Your task to perform on an android device: Open privacy settings Image 0: 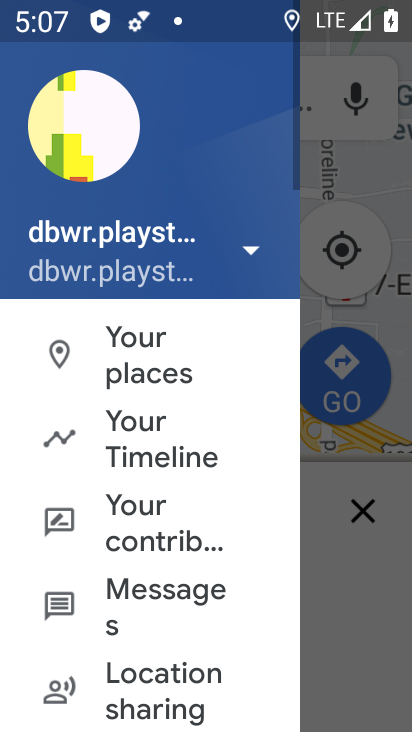
Step 0: press home button
Your task to perform on an android device: Open privacy settings Image 1: 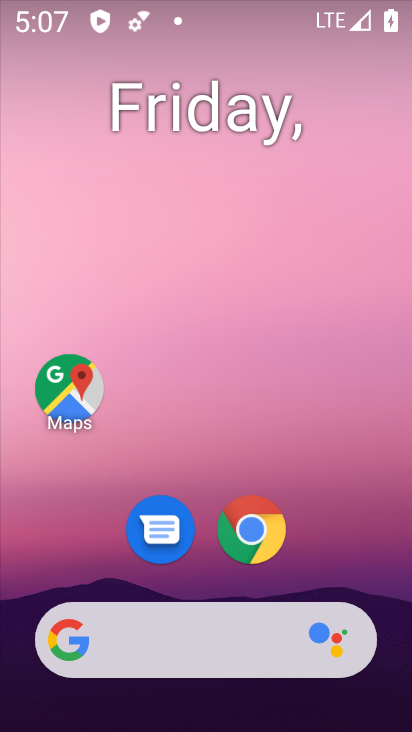
Step 1: drag from (312, 504) to (218, 17)
Your task to perform on an android device: Open privacy settings Image 2: 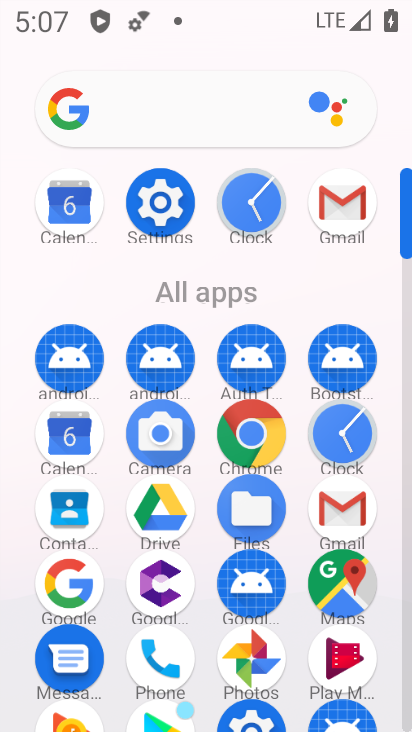
Step 2: click (154, 200)
Your task to perform on an android device: Open privacy settings Image 3: 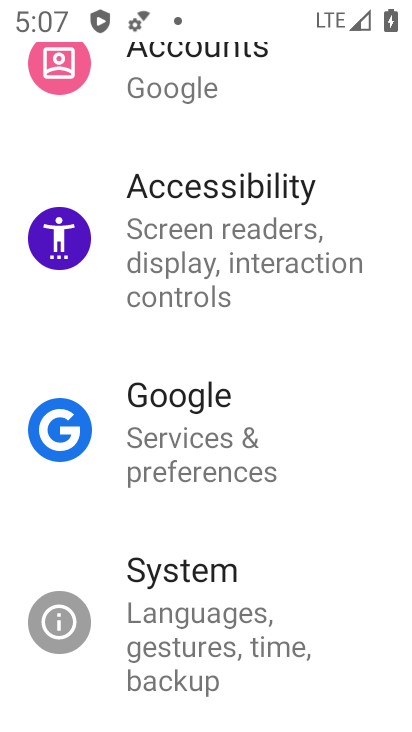
Step 3: drag from (271, 122) to (251, 705)
Your task to perform on an android device: Open privacy settings Image 4: 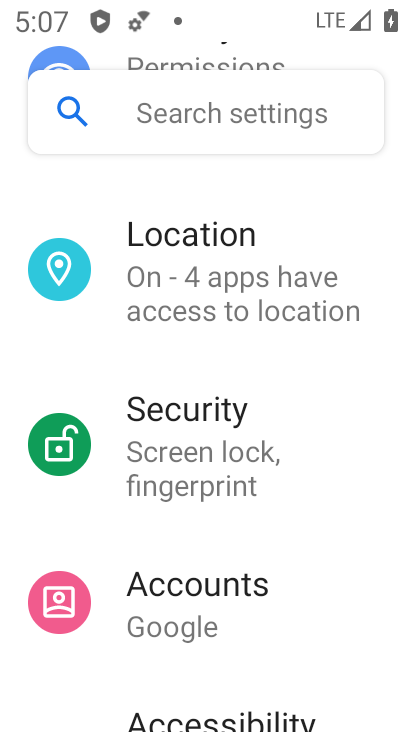
Step 4: drag from (310, 248) to (253, 725)
Your task to perform on an android device: Open privacy settings Image 5: 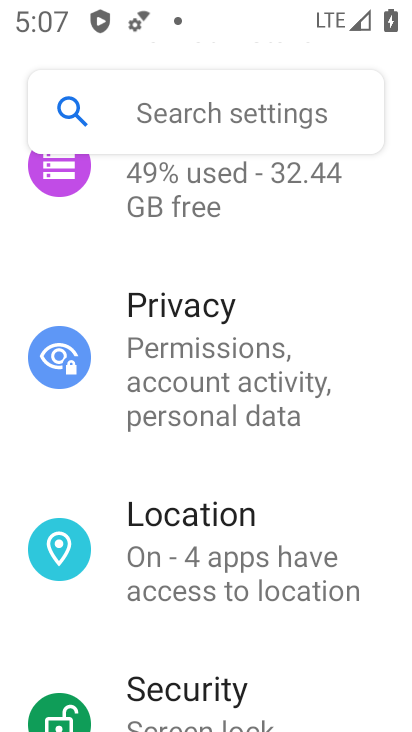
Step 5: click (189, 320)
Your task to perform on an android device: Open privacy settings Image 6: 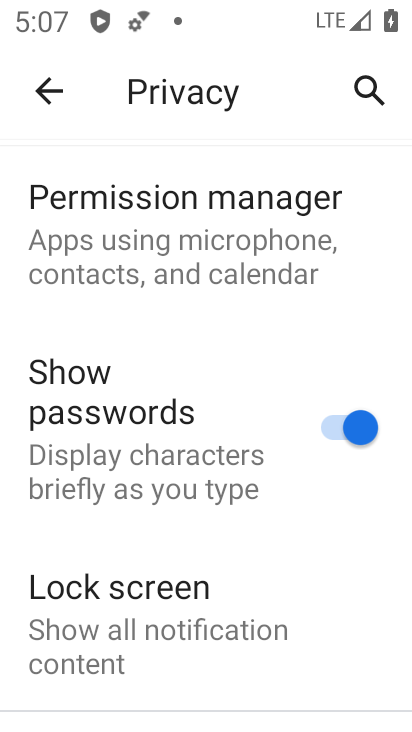
Step 6: task complete